Your task to perform on an android device: turn smart compose on in the gmail app Image 0: 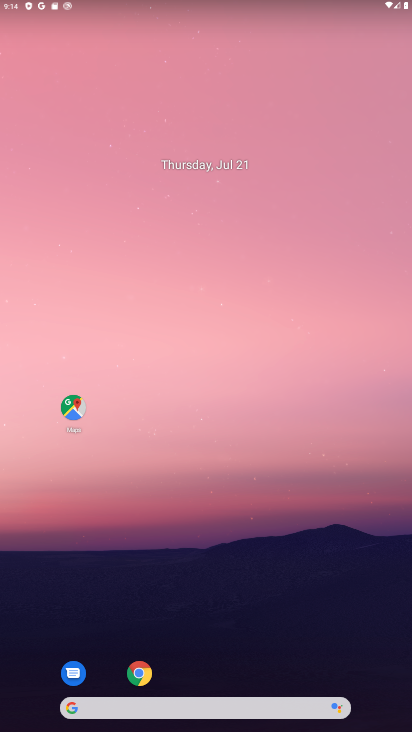
Step 0: press home button
Your task to perform on an android device: turn smart compose on in the gmail app Image 1: 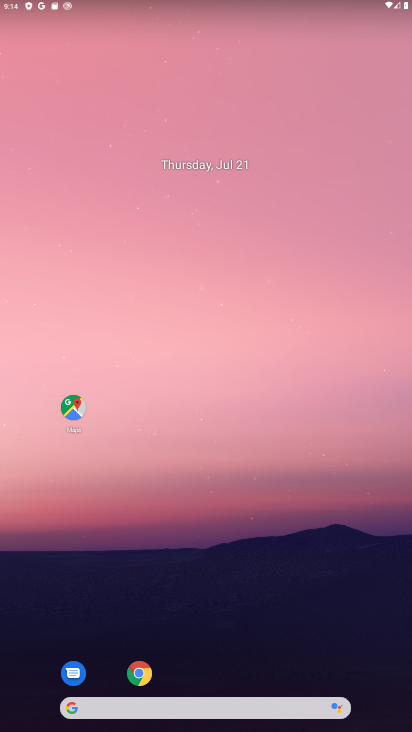
Step 1: drag from (195, 670) to (221, 99)
Your task to perform on an android device: turn smart compose on in the gmail app Image 2: 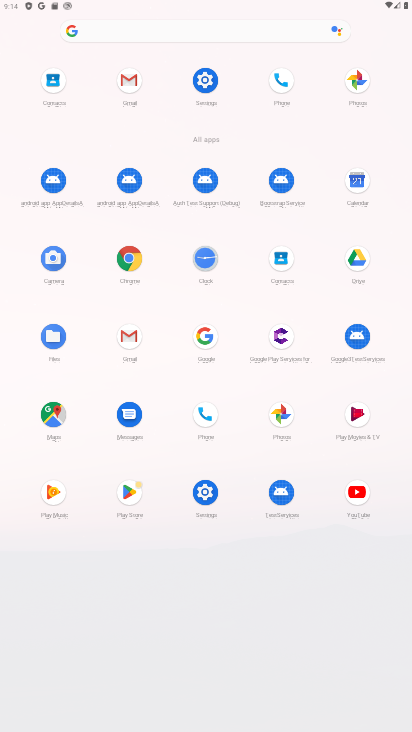
Step 2: click (128, 69)
Your task to perform on an android device: turn smart compose on in the gmail app Image 3: 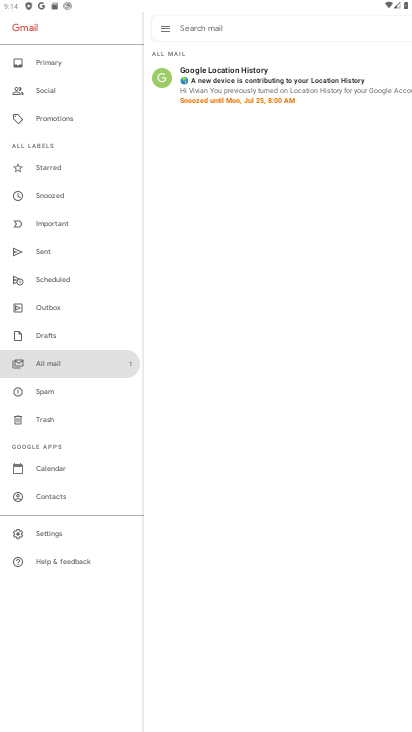
Step 3: click (60, 530)
Your task to perform on an android device: turn smart compose on in the gmail app Image 4: 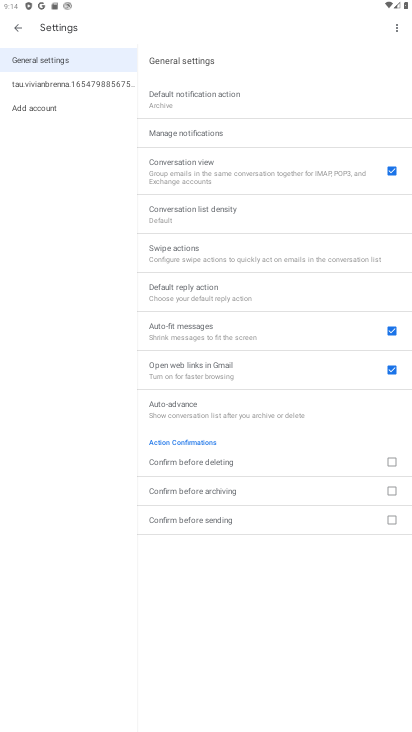
Step 4: click (69, 79)
Your task to perform on an android device: turn smart compose on in the gmail app Image 5: 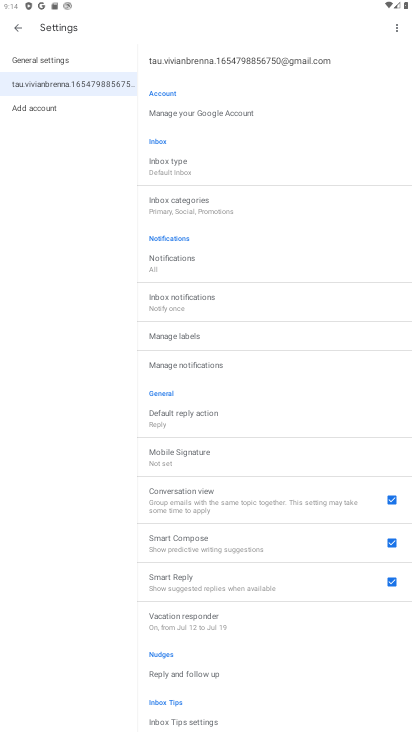
Step 5: task complete